Your task to perform on an android device: Open battery settings Image 0: 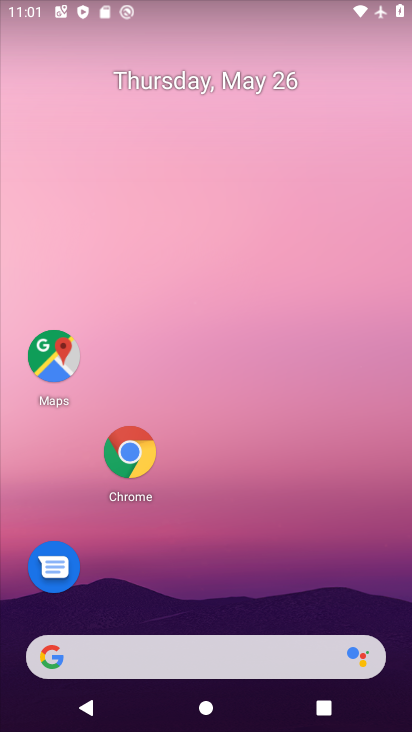
Step 0: press home button
Your task to perform on an android device: Open battery settings Image 1: 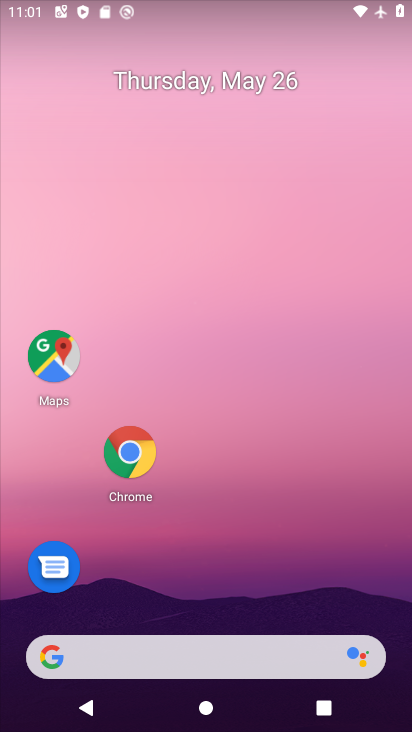
Step 1: drag from (212, 527) to (298, 181)
Your task to perform on an android device: Open battery settings Image 2: 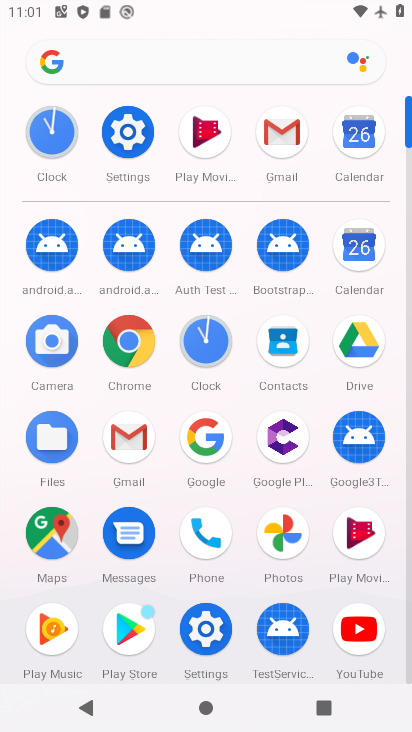
Step 2: click (109, 128)
Your task to perform on an android device: Open battery settings Image 3: 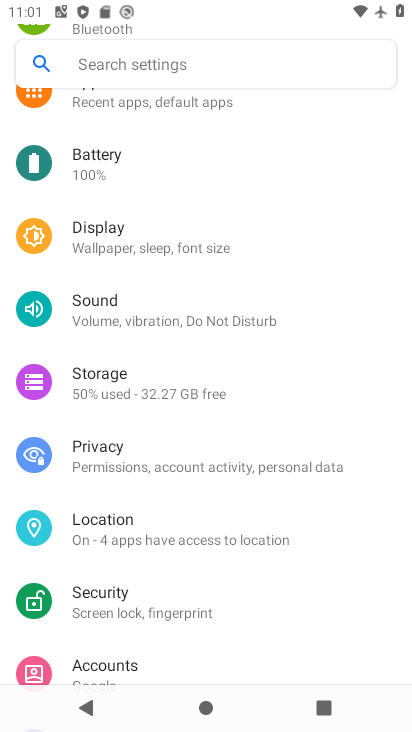
Step 3: click (91, 166)
Your task to perform on an android device: Open battery settings Image 4: 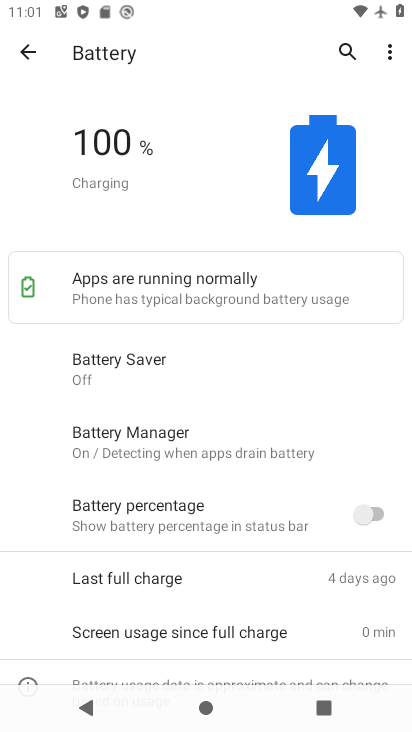
Step 4: click (93, 166)
Your task to perform on an android device: Open battery settings Image 5: 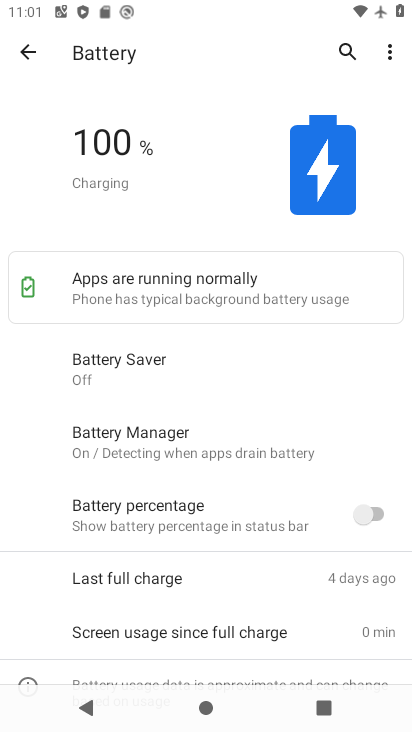
Step 5: task complete